Your task to perform on an android device: Open Chrome and go to the settings page Image 0: 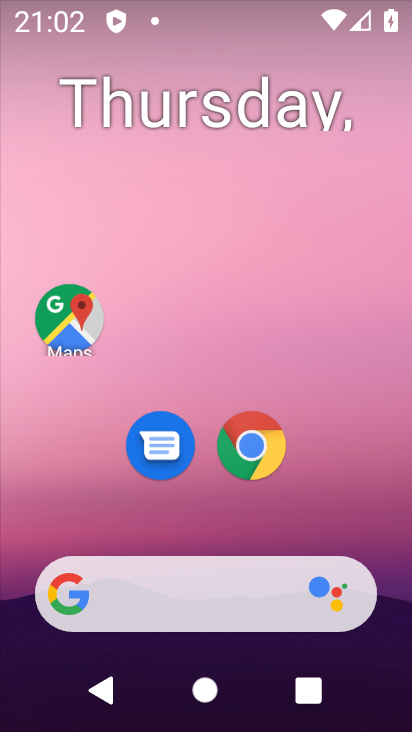
Step 0: drag from (4, 659) to (228, 191)
Your task to perform on an android device: Open Chrome and go to the settings page Image 1: 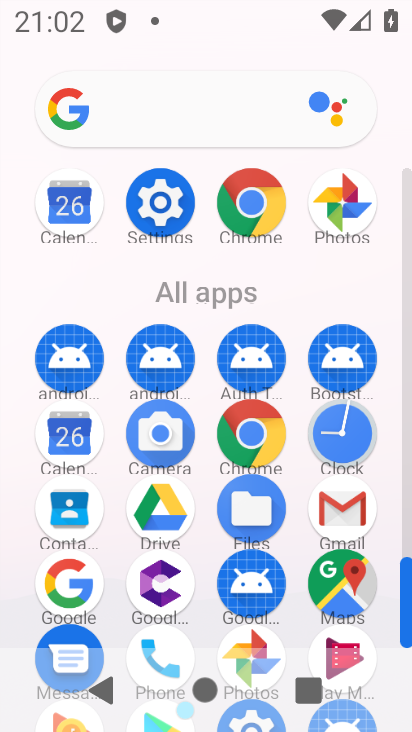
Step 1: click (249, 201)
Your task to perform on an android device: Open Chrome and go to the settings page Image 2: 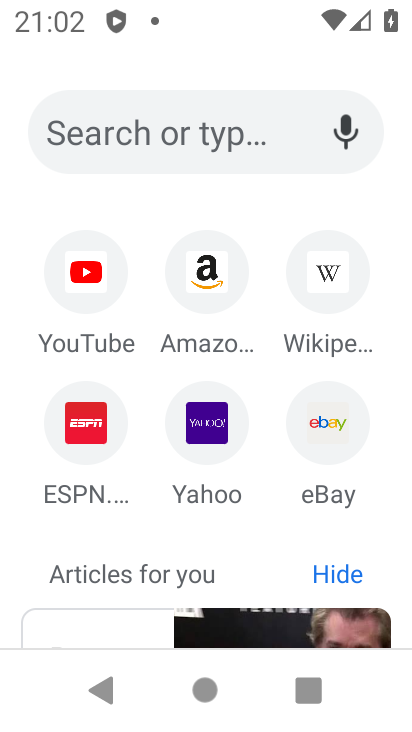
Step 2: drag from (208, 166) to (130, 520)
Your task to perform on an android device: Open Chrome and go to the settings page Image 3: 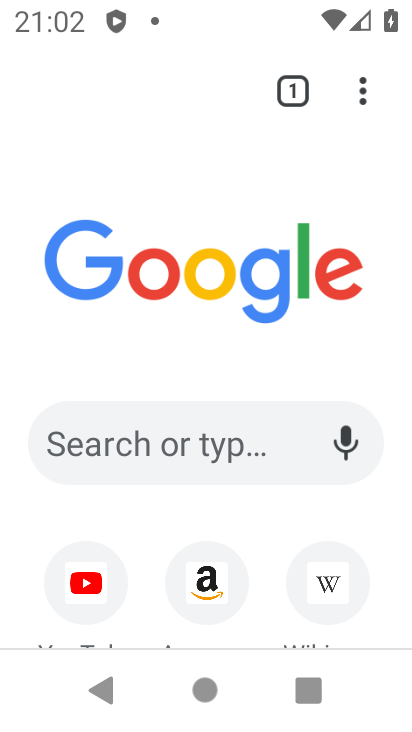
Step 3: click (353, 86)
Your task to perform on an android device: Open Chrome and go to the settings page Image 4: 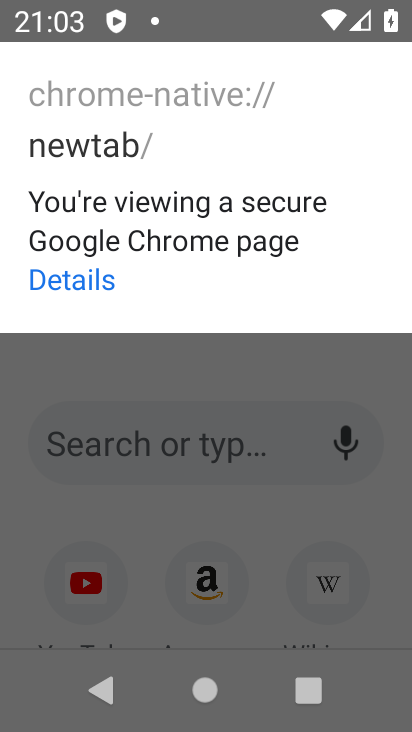
Step 4: press back button
Your task to perform on an android device: Open Chrome and go to the settings page Image 5: 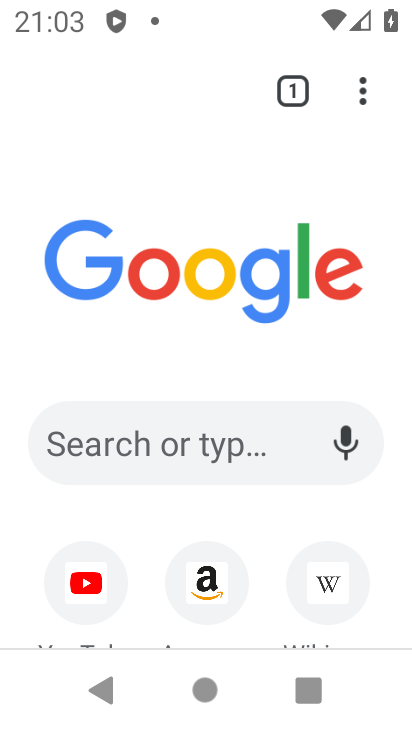
Step 5: click (363, 86)
Your task to perform on an android device: Open Chrome and go to the settings page Image 6: 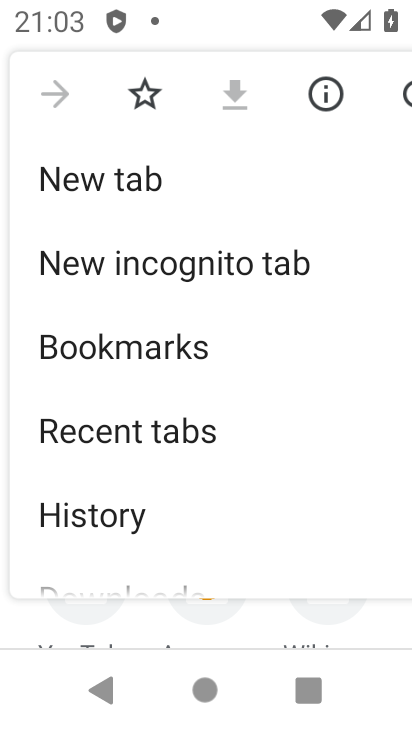
Step 6: drag from (118, 576) to (262, 161)
Your task to perform on an android device: Open Chrome and go to the settings page Image 7: 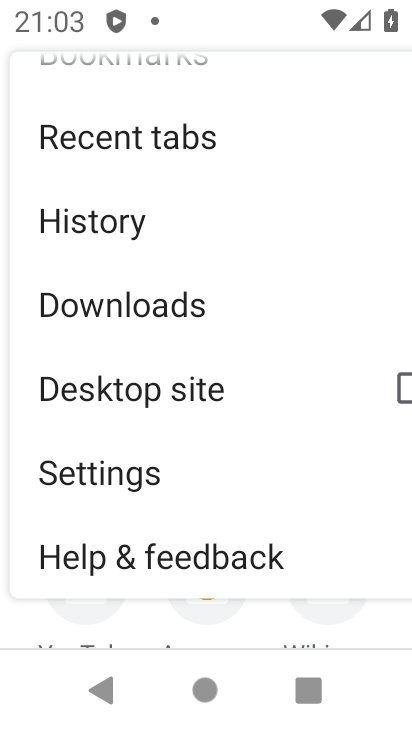
Step 7: click (119, 462)
Your task to perform on an android device: Open Chrome and go to the settings page Image 8: 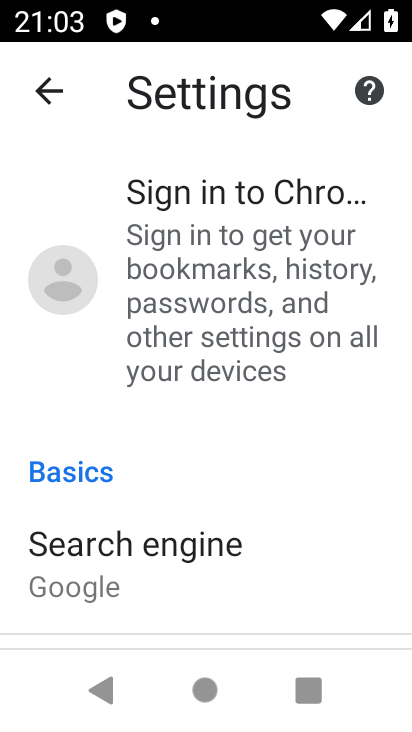
Step 8: task complete